Your task to perform on an android device: delete browsing data in the chrome app Image 0: 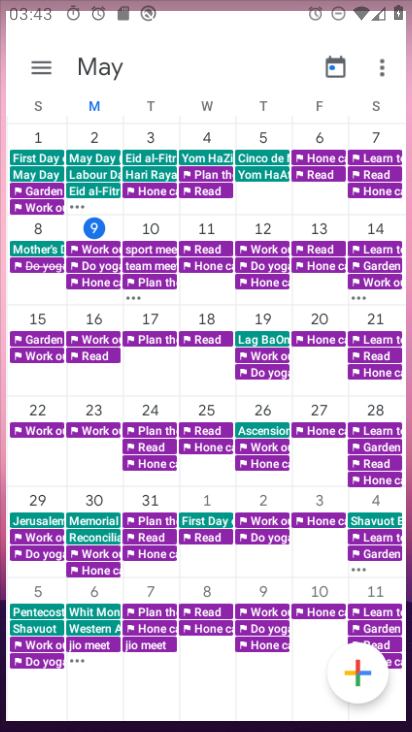
Step 0: drag from (194, 663) to (273, 79)
Your task to perform on an android device: delete browsing data in the chrome app Image 1: 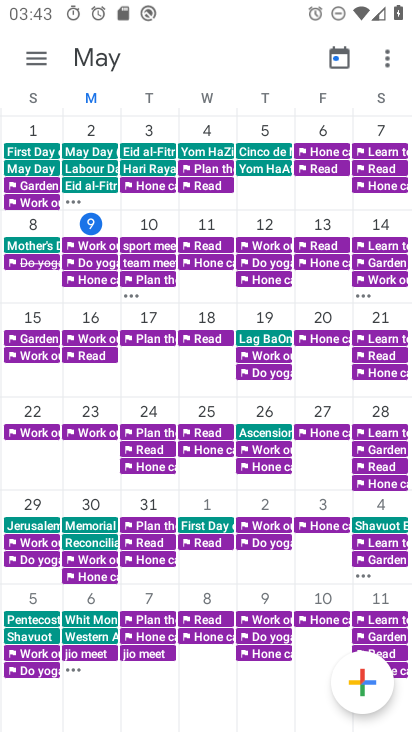
Step 1: press home button
Your task to perform on an android device: delete browsing data in the chrome app Image 2: 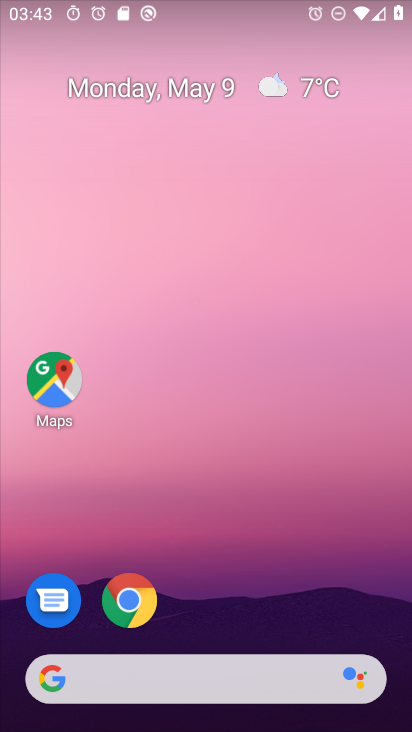
Step 2: click (118, 603)
Your task to perform on an android device: delete browsing data in the chrome app Image 3: 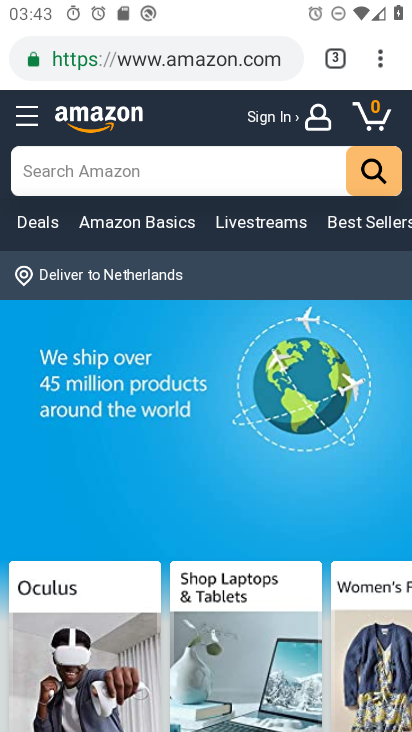
Step 3: click (375, 67)
Your task to perform on an android device: delete browsing data in the chrome app Image 4: 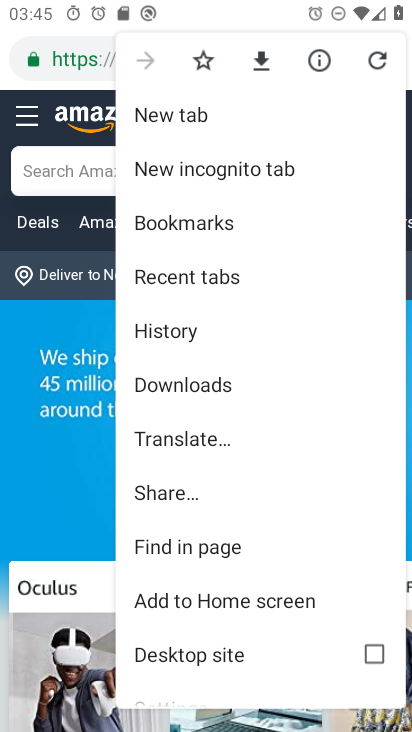
Step 4: click (167, 338)
Your task to perform on an android device: delete browsing data in the chrome app Image 5: 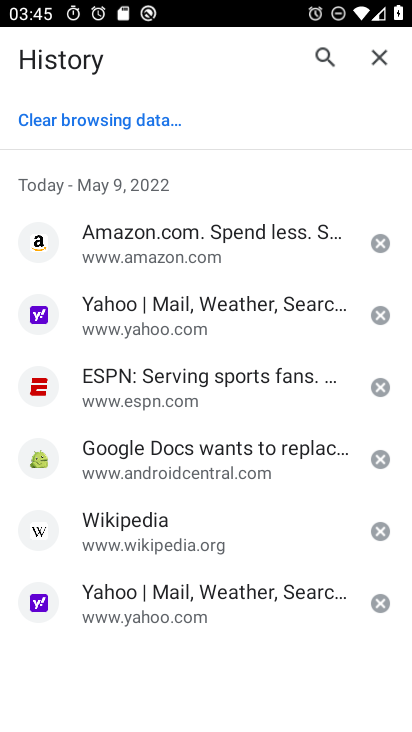
Step 5: click (58, 123)
Your task to perform on an android device: delete browsing data in the chrome app Image 6: 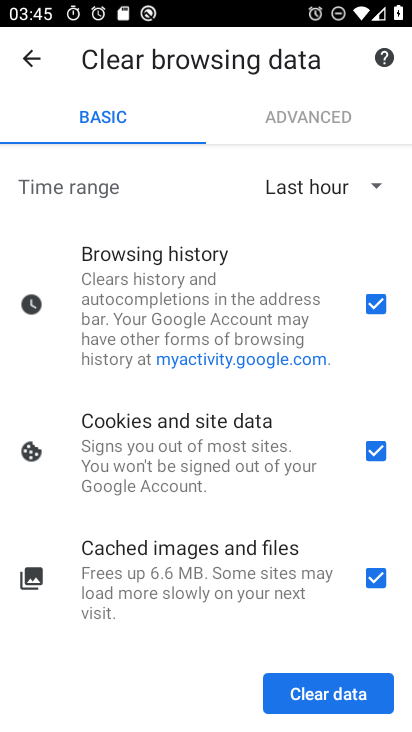
Step 6: click (372, 678)
Your task to perform on an android device: delete browsing data in the chrome app Image 7: 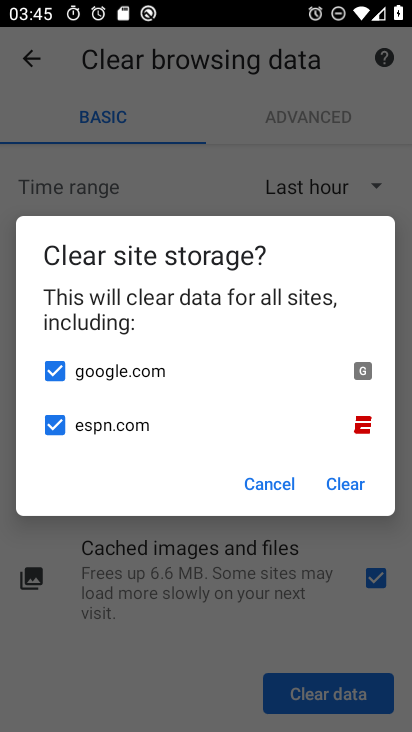
Step 7: task complete